Your task to perform on an android device: What is the recent news? Image 0: 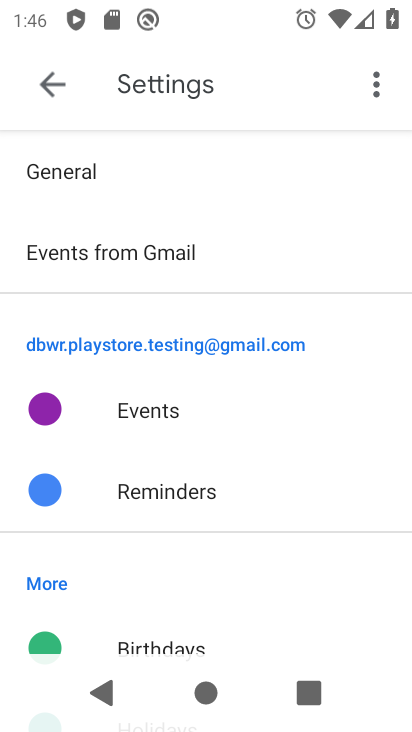
Step 0: press home button
Your task to perform on an android device: What is the recent news? Image 1: 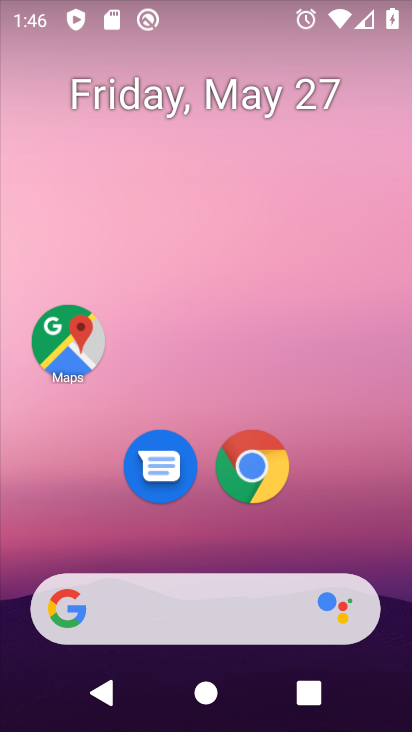
Step 1: click (255, 463)
Your task to perform on an android device: What is the recent news? Image 2: 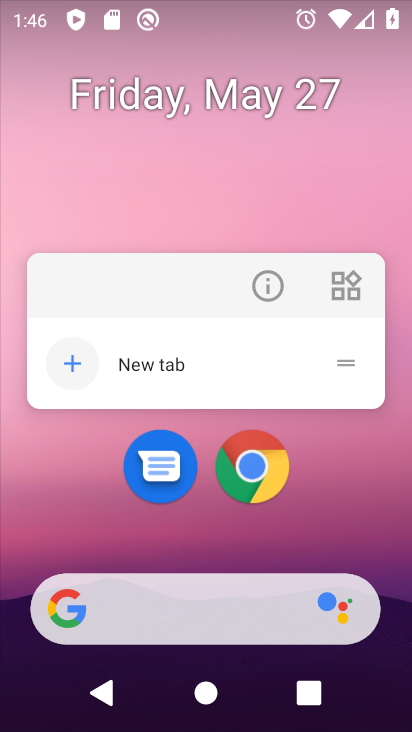
Step 2: click (330, 516)
Your task to perform on an android device: What is the recent news? Image 3: 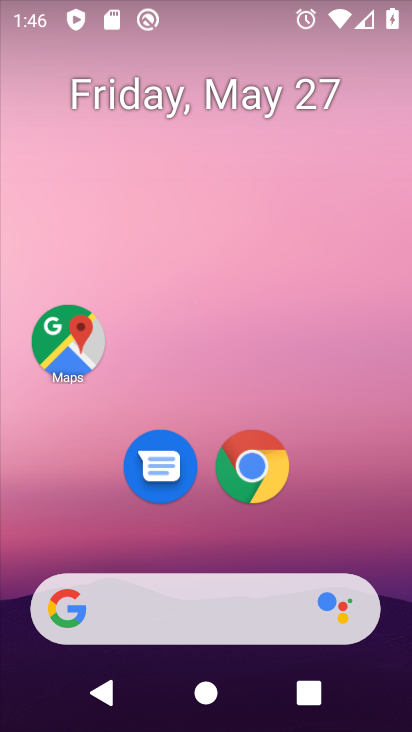
Step 3: drag from (334, 461) to (315, 167)
Your task to perform on an android device: What is the recent news? Image 4: 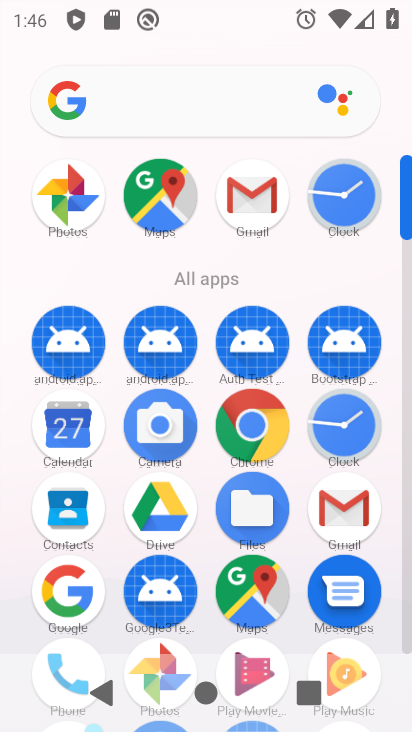
Step 4: click (254, 423)
Your task to perform on an android device: What is the recent news? Image 5: 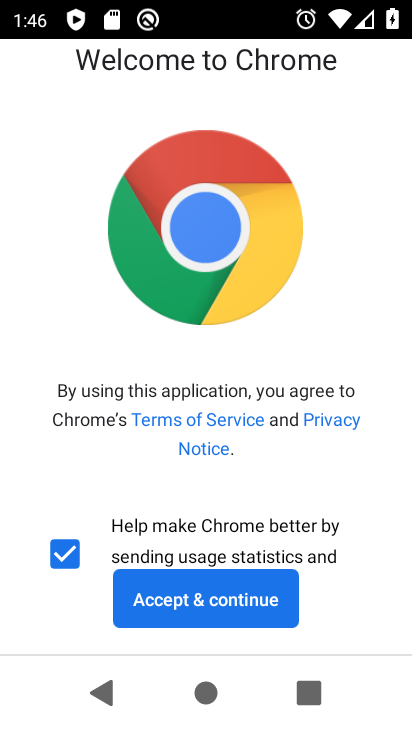
Step 5: click (219, 602)
Your task to perform on an android device: What is the recent news? Image 6: 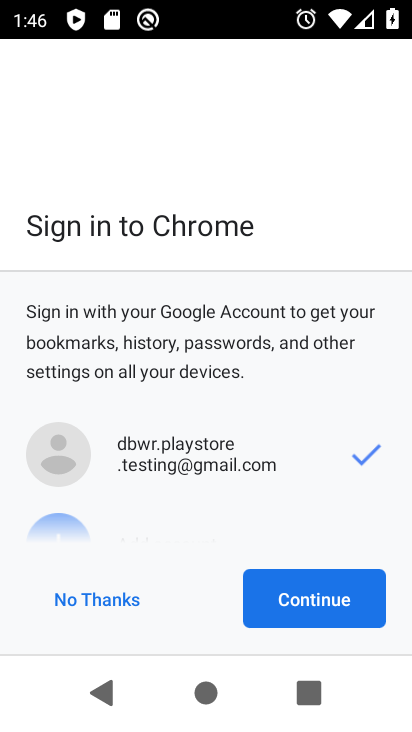
Step 6: click (293, 601)
Your task to perform on an android device: What is the recent news? Image 7: 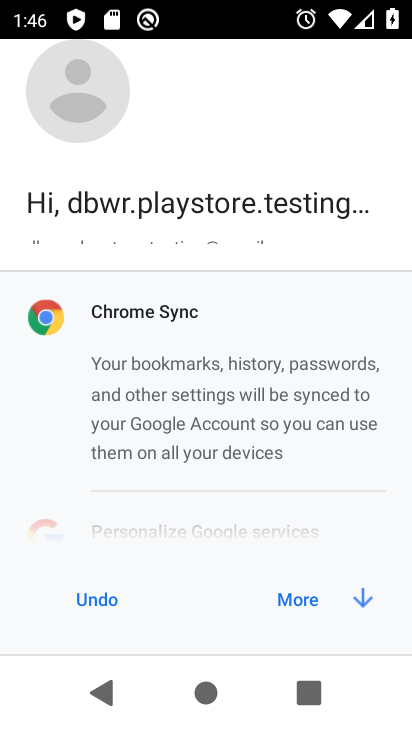
Step 7: click (346, 597)
Your task to perform on an android device: What is the recent news? Image 8: 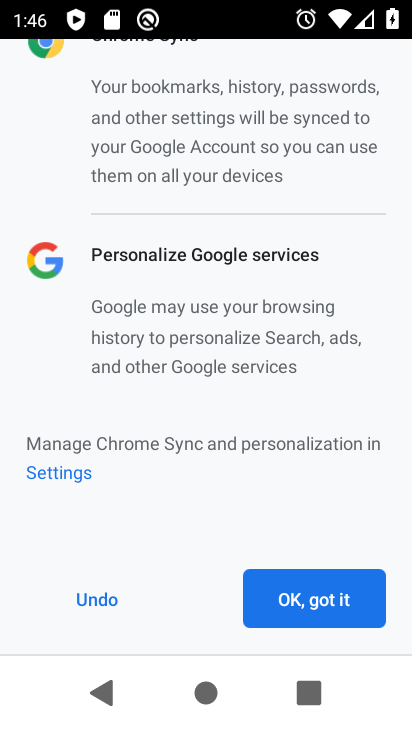
Step 8: click (343, 600)
Your task to perform on an android device: What is the recent news? Image 9: 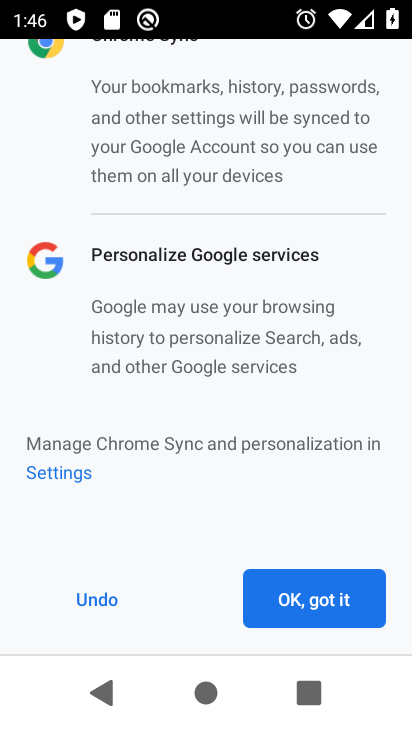
Step 9: click (343, 600)
Your task to perform on an android device: What is the recent news? Image 10: 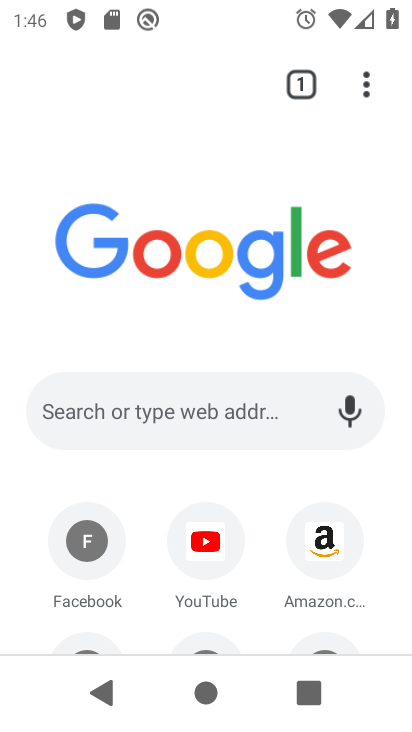
Step 10: click (83, 78)
Your task to perform on an android device: What is the recent news? Image 11: 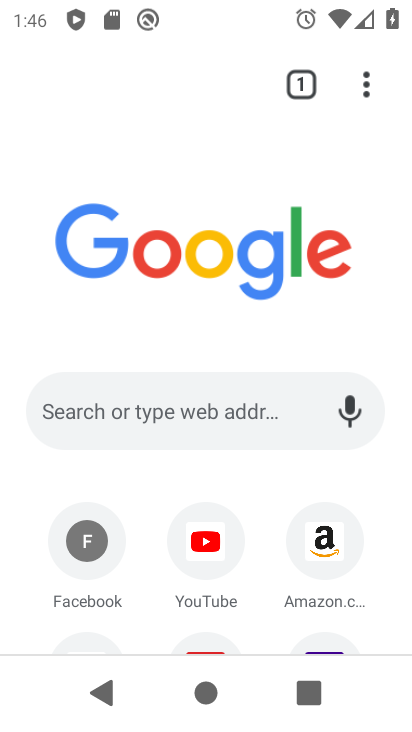
Step 11: click (80, 425)
Your task to perform on an android device: What is the recent news? Image 12: 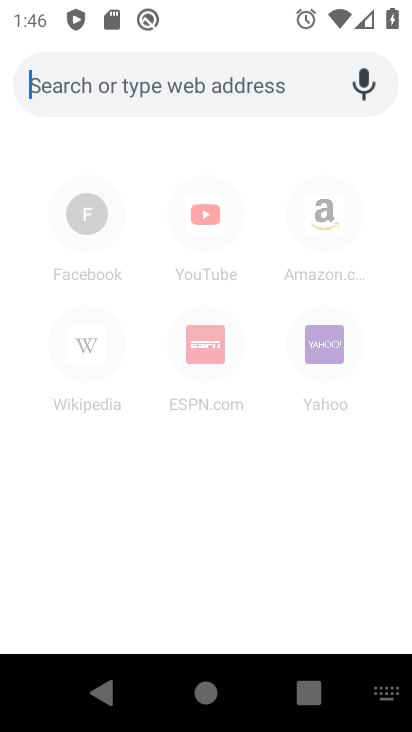
Step 12: type "What is the recent news?"
Your task to perform on an android device: What is the recent news? Image 13: 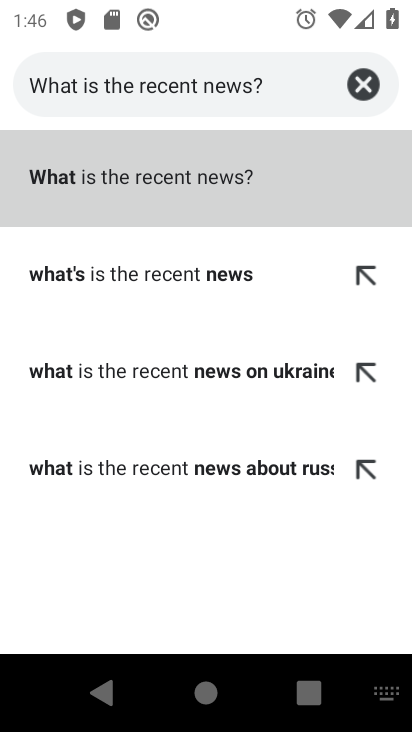
Step 13: click (125, 169)
Your task to perform on an android device: What is the recent news? Image 14: 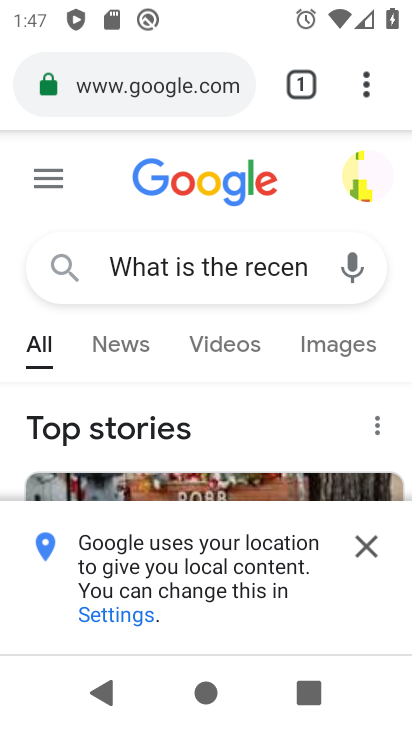
Step 14: task complete